Your task to perform on an android device: turn on bluetooth scan Image 0: 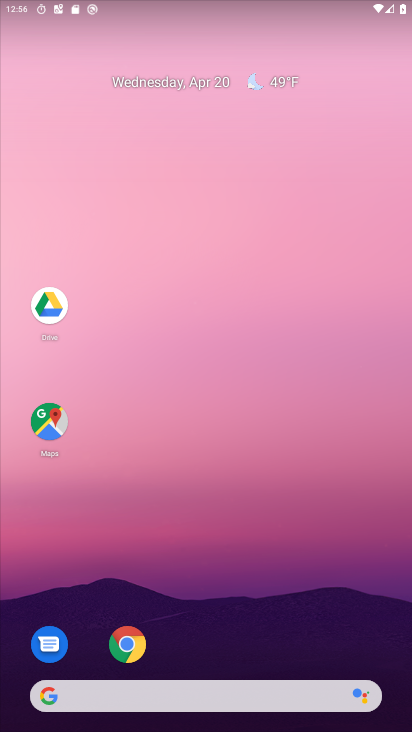
Step 0: drag from (208, 499) to (168, 25)
Your task to perform on an android device: turn on bluetooth scan Image 1: 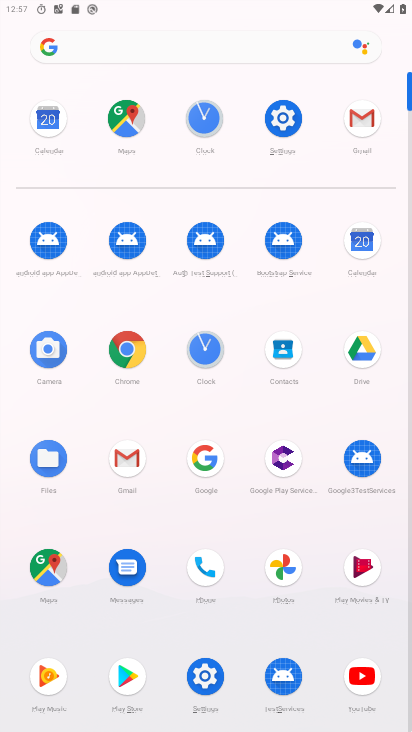
Step 1: click (201, 674)
Your task to perform on an android device: turn on bluetooth scan Image 2: 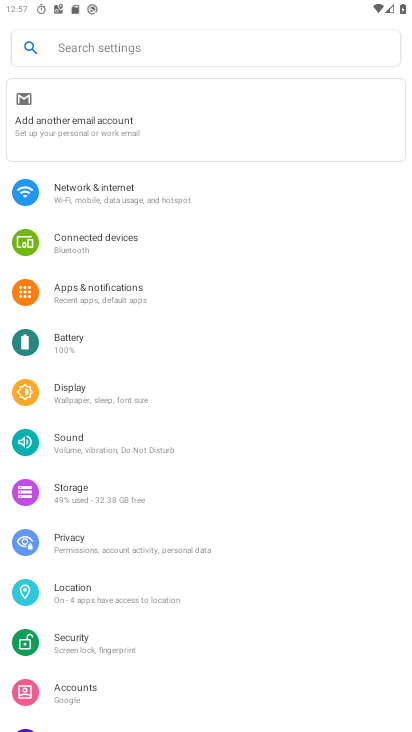
Step 2: click (87, 590)
Your task to perform on an android device: turn on bluetooth scan Image 3: 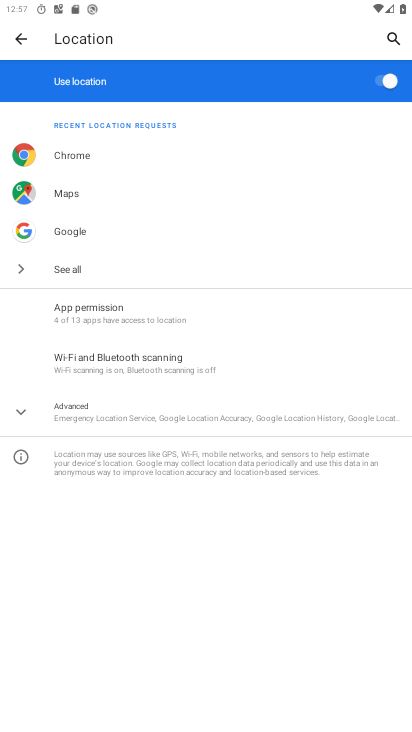
Step 3: click (163, 361)
Your task to perform on an android device: turn on bluetooth scan Image 4: 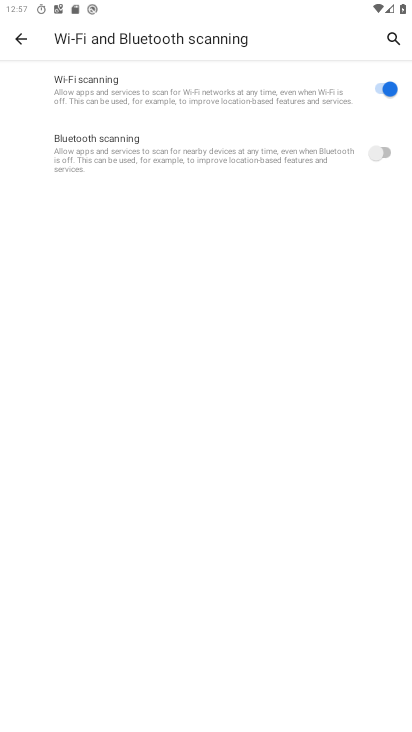
Step 4: click (379, 151)
Your task to perform on an android device: turn on bluetooth scan Image 5: 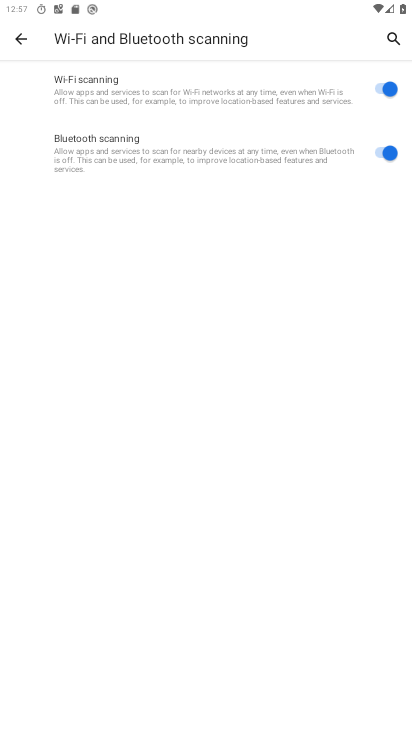
Step 5: task complete